Your task to perform on an android device: Add razer blade to the cart on bestbuy.com Image 0: 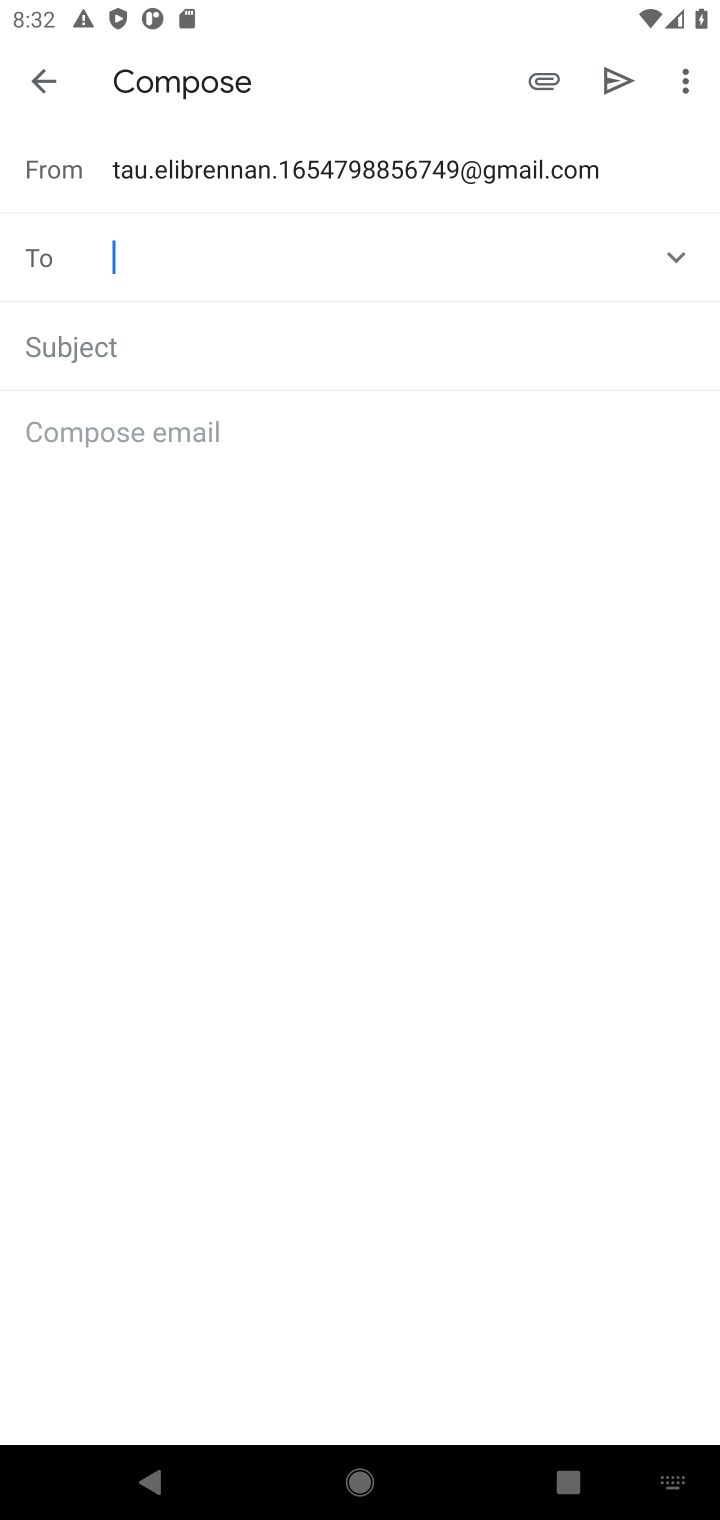
Step 0: press home button
Your task to perform on an android device: Add razer blade to the cart on bestbuy.com Image 1: 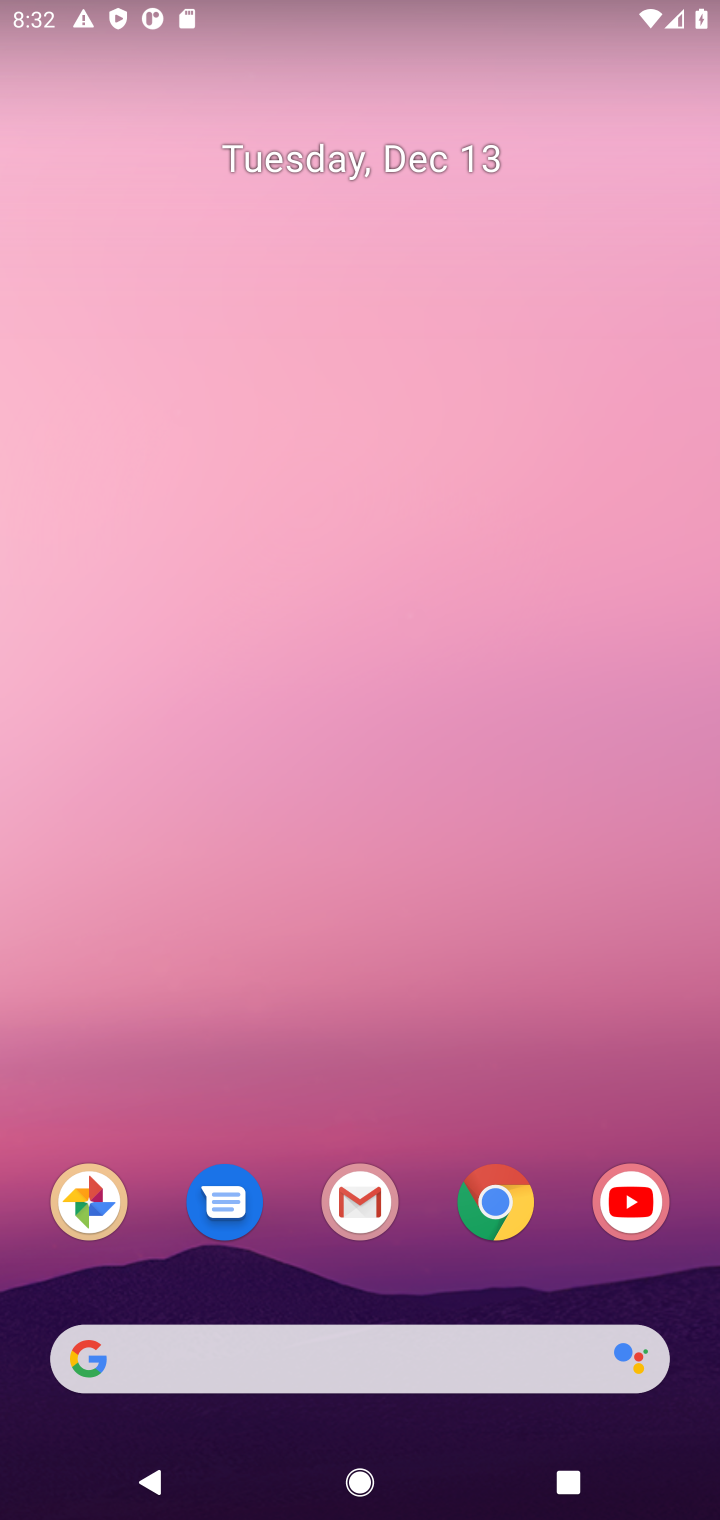
Step 1: click (485, 1222)
Your task to perform on an android device: Add razer blade to the cart on bestbuy.com Image 2: 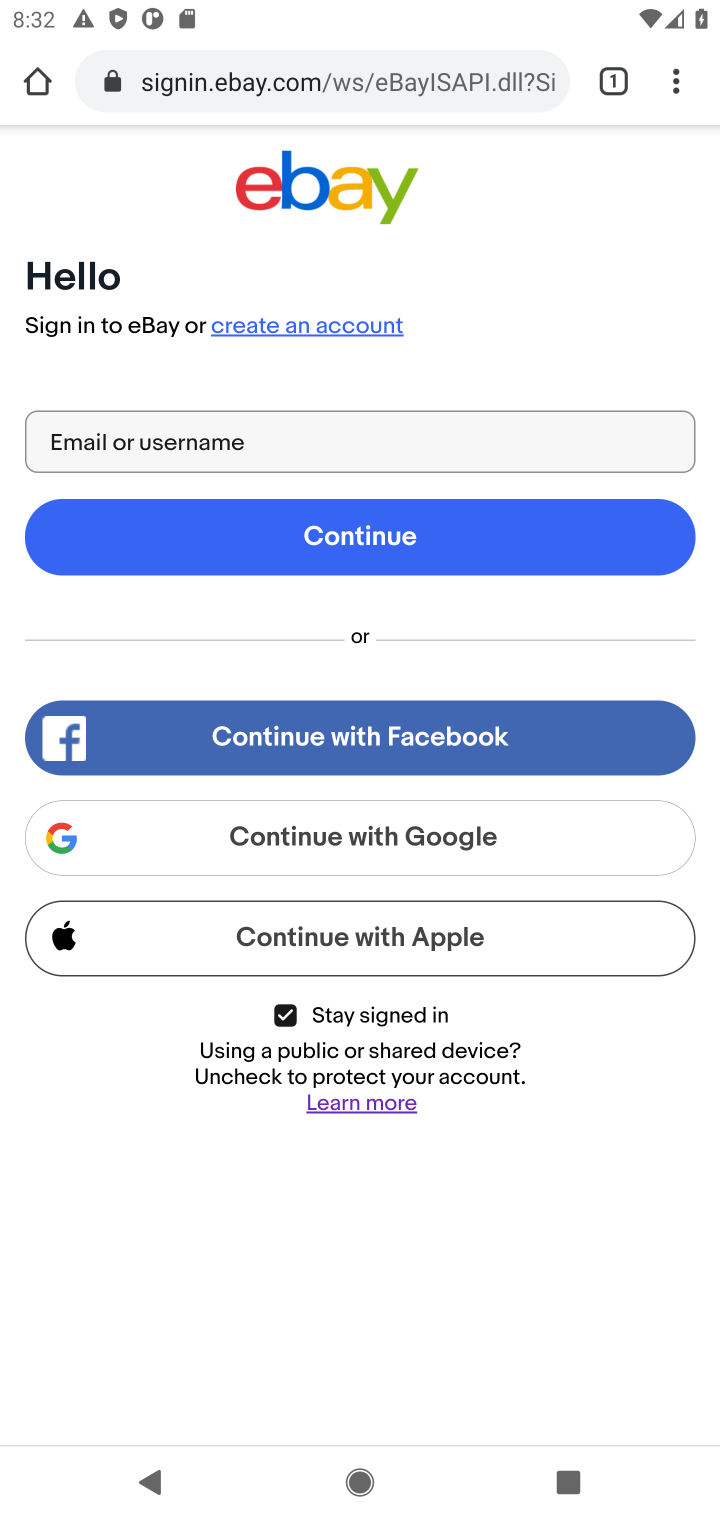
Step 2: click (442, 80)
Your task to perform on an android device: Add razer blade to the cart on bestbuy.com Image 3: 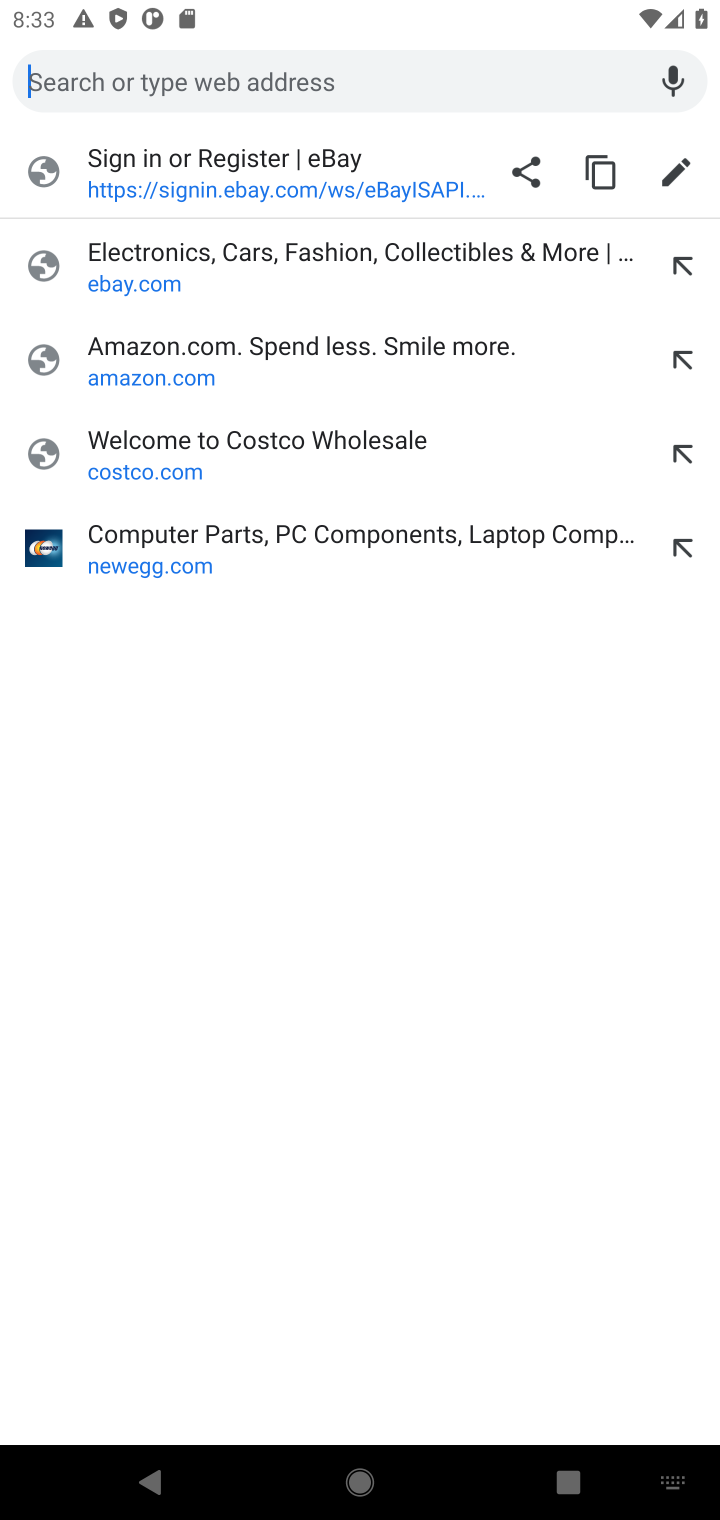
Step 3: type "bestbuy.com"
Your task to perform on an android device: Add razer blade to the cart on bestbuy.com Image 4: 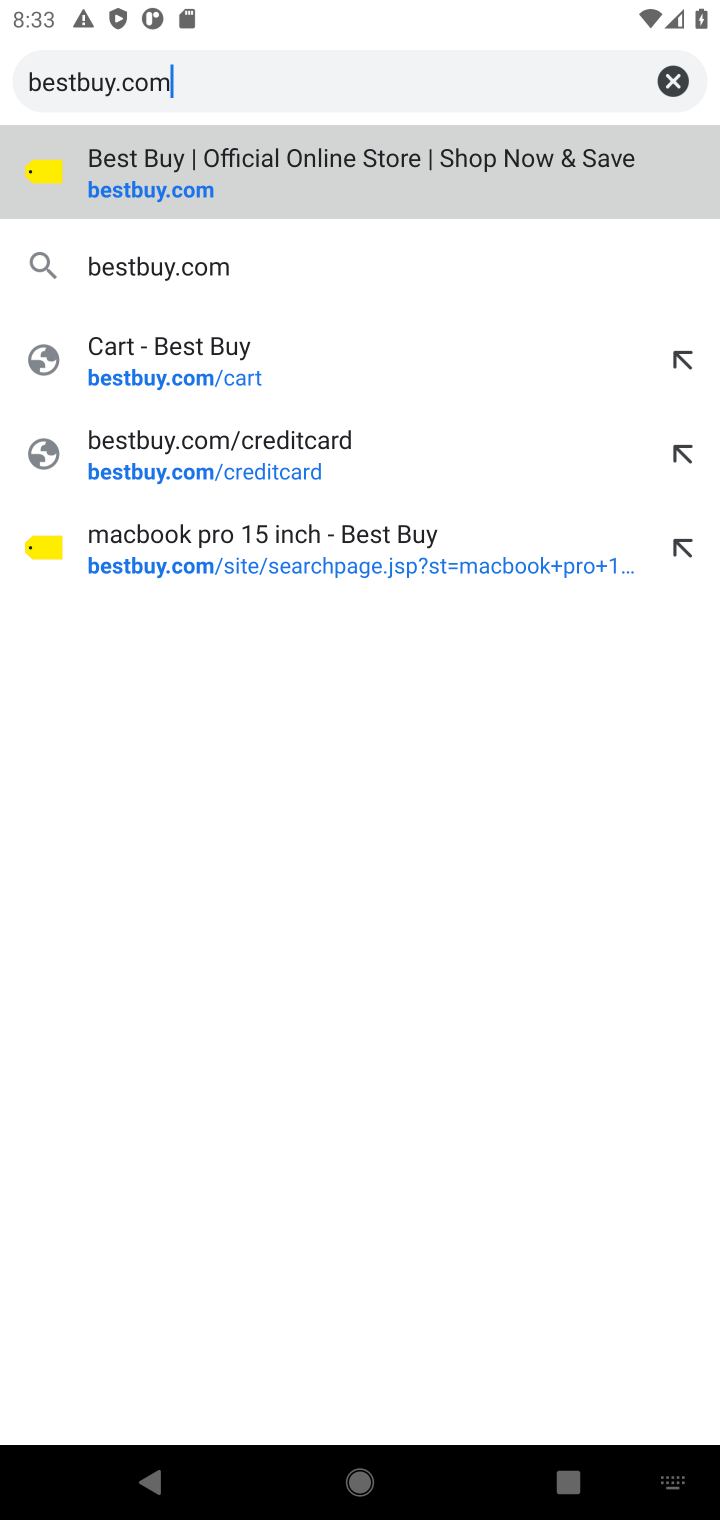
Step 4: click (201, 175)
Your task to perform on an android device: Add razer blade to the cart on bestbuy.com Image 5: 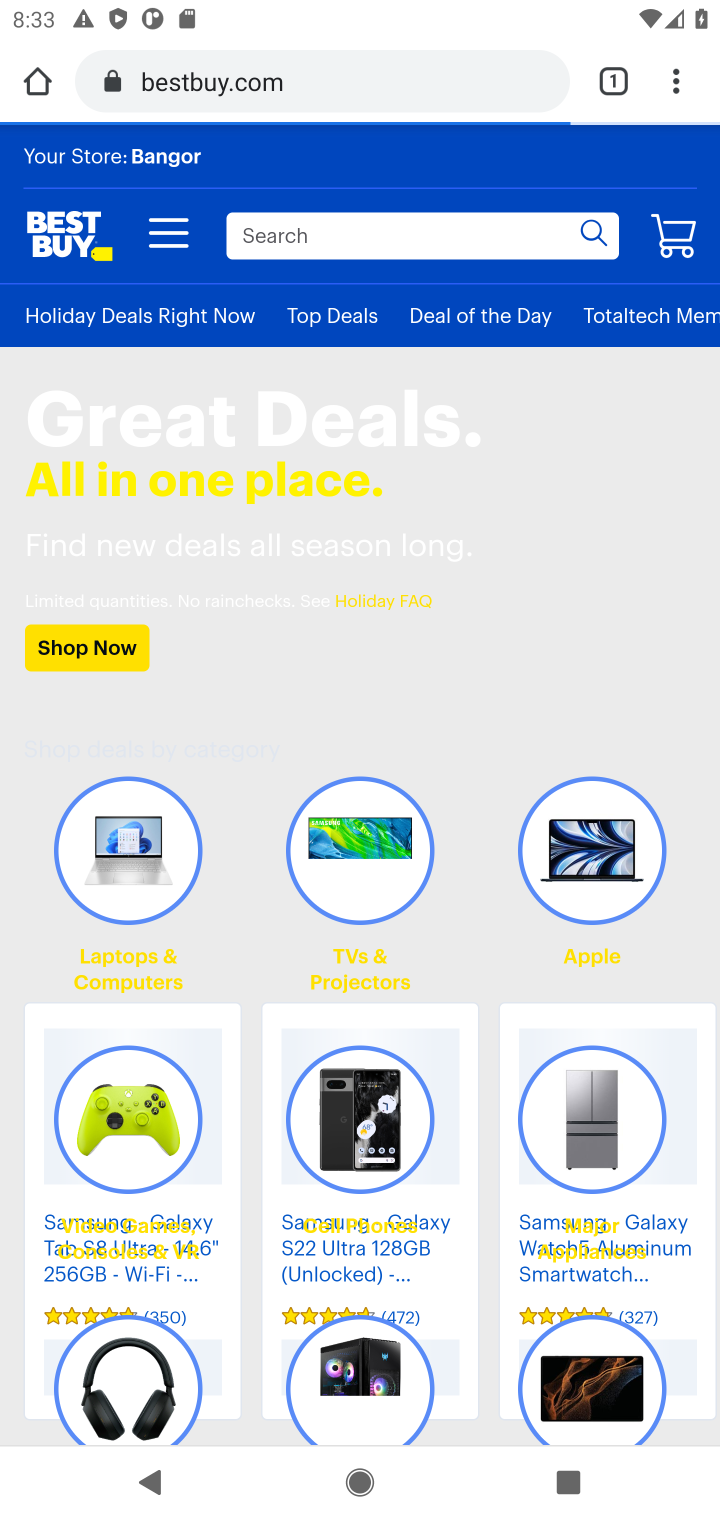
Step 5: click (451, 245)
Your task to perform on an android device: Add razer blade to the cart on bestbuy.com Image 6: 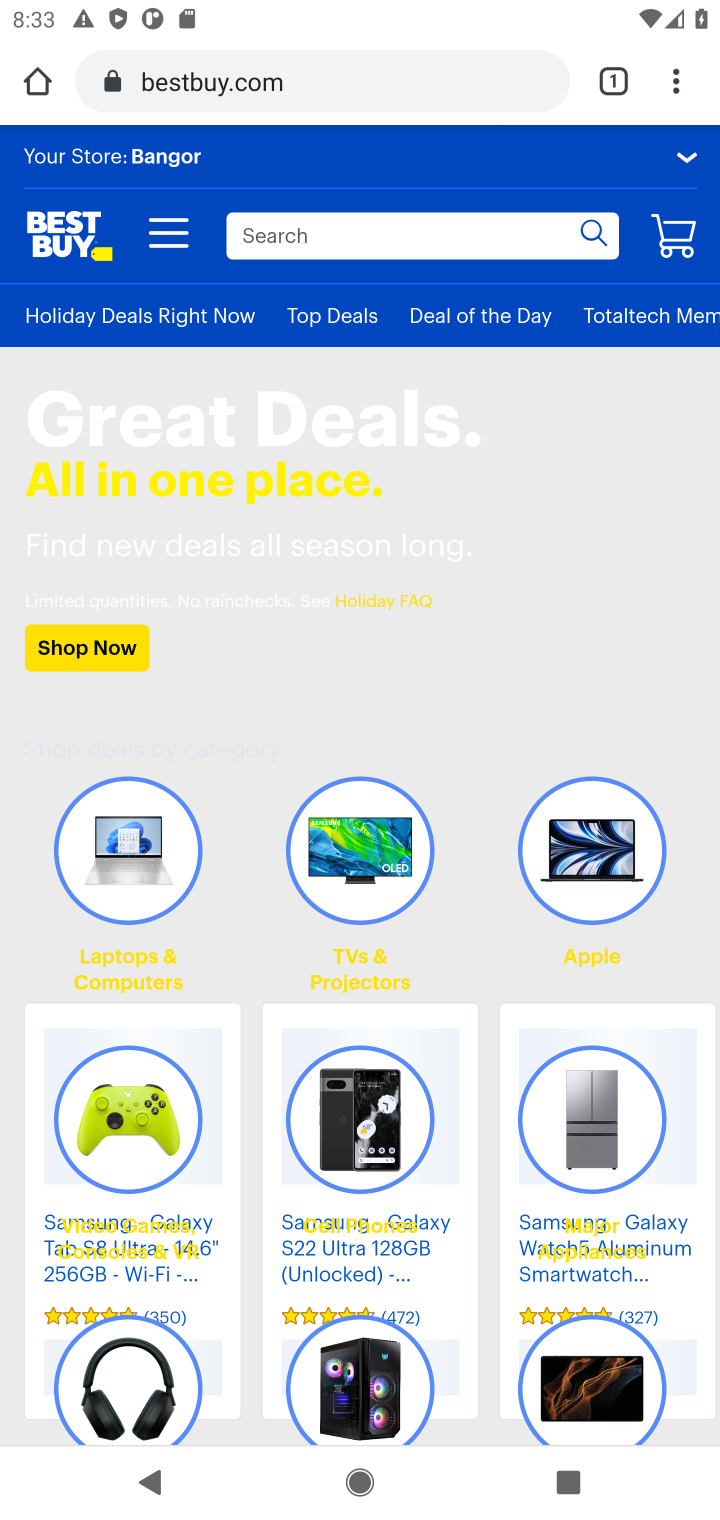
Step 6: type "razer blade"
Your task to perform on an android device: Add razer blade to the cart on bestbuy.com Image 7: 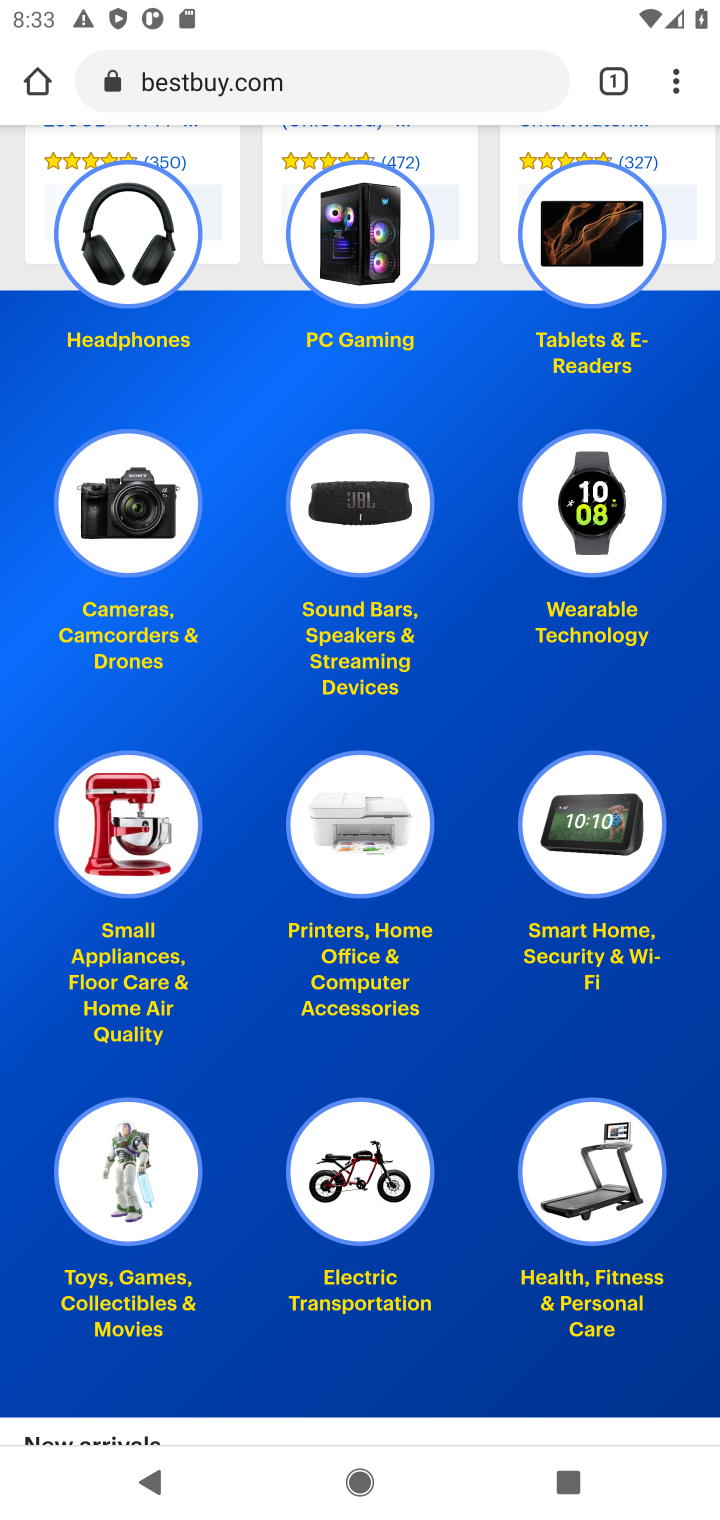
Step 7: drag from (432, 901) to (464, 487)
Your task to perform on an android device: Add razer blade to the cart on bestbuy.com Image 8: 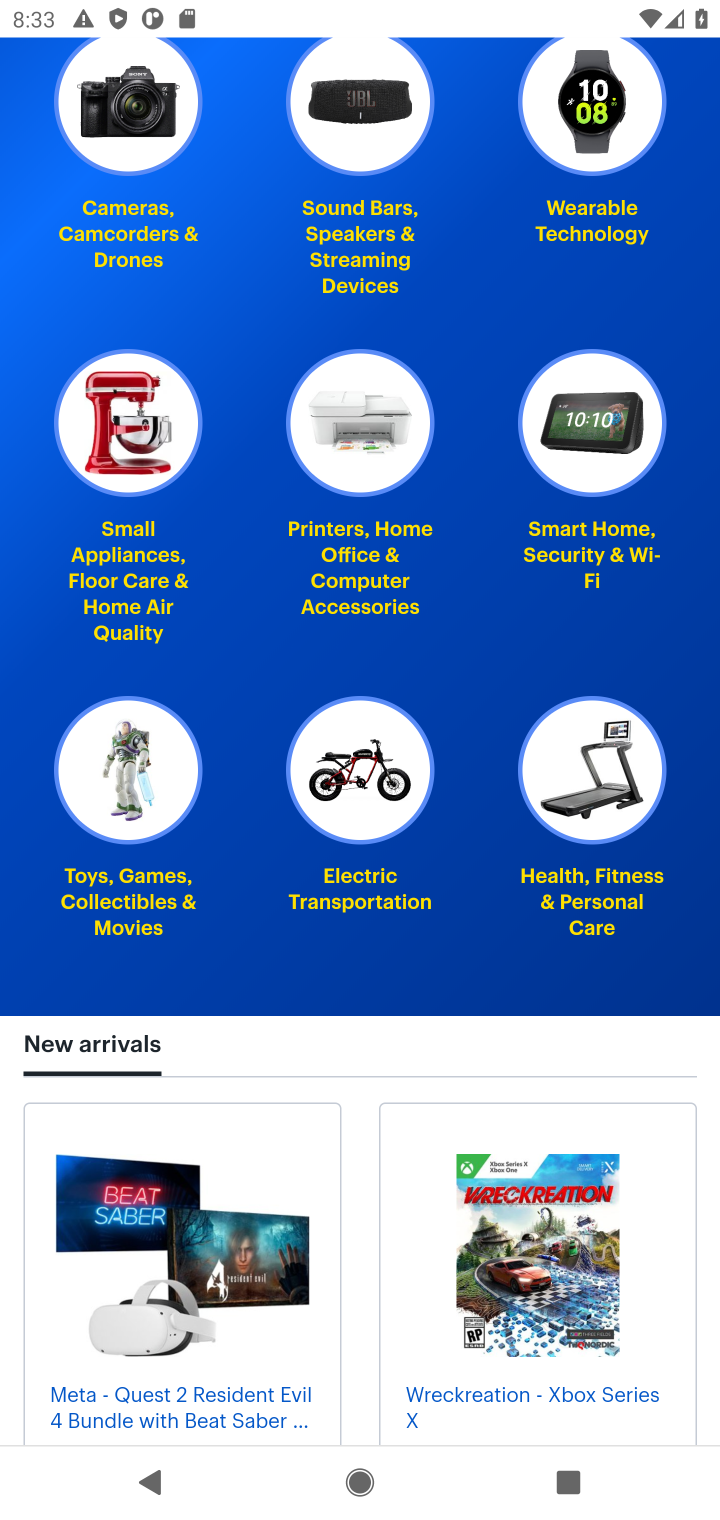
Step 8: drag from (449, 688) to (386, 1181)
Your task to perform on an android device: Add razer blade to the cart on bestbuy.com Image 9: 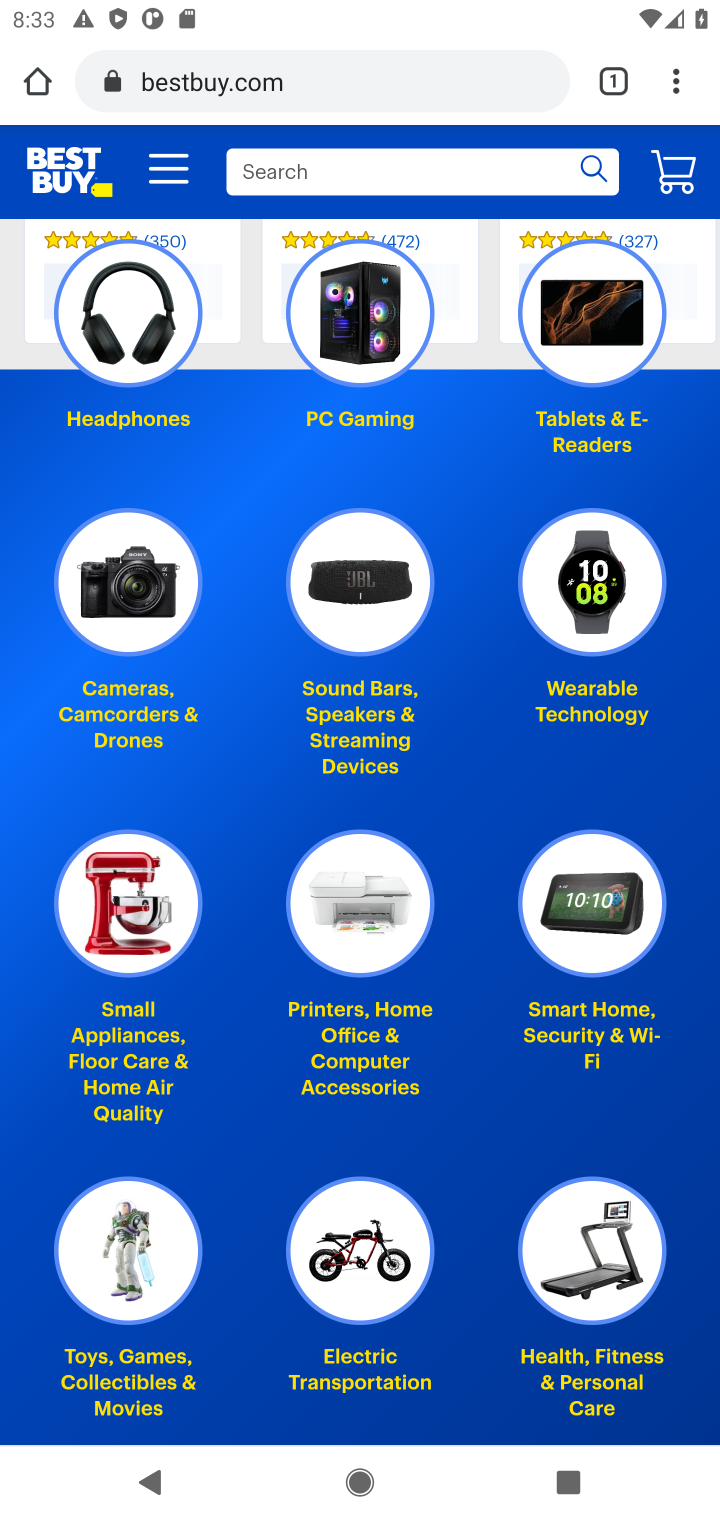
Step 9: click (334, 168)
Your task to perform on an android device: Add razer blade to the cart on bestbuy.com Image 10: 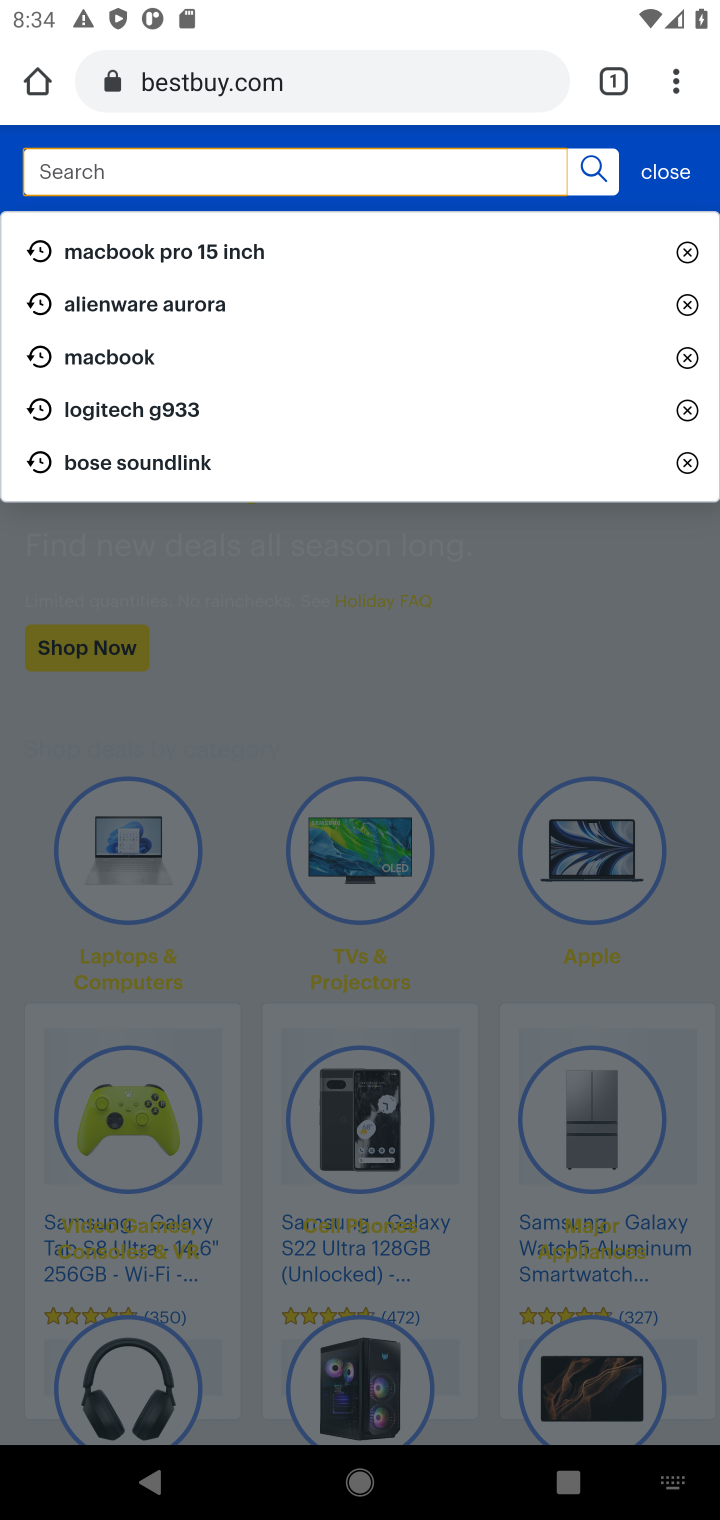
Step 10: type "razer blade"
Your task to perform on an android device: Add razer blade to the cart on bestbuy.com Image 11: 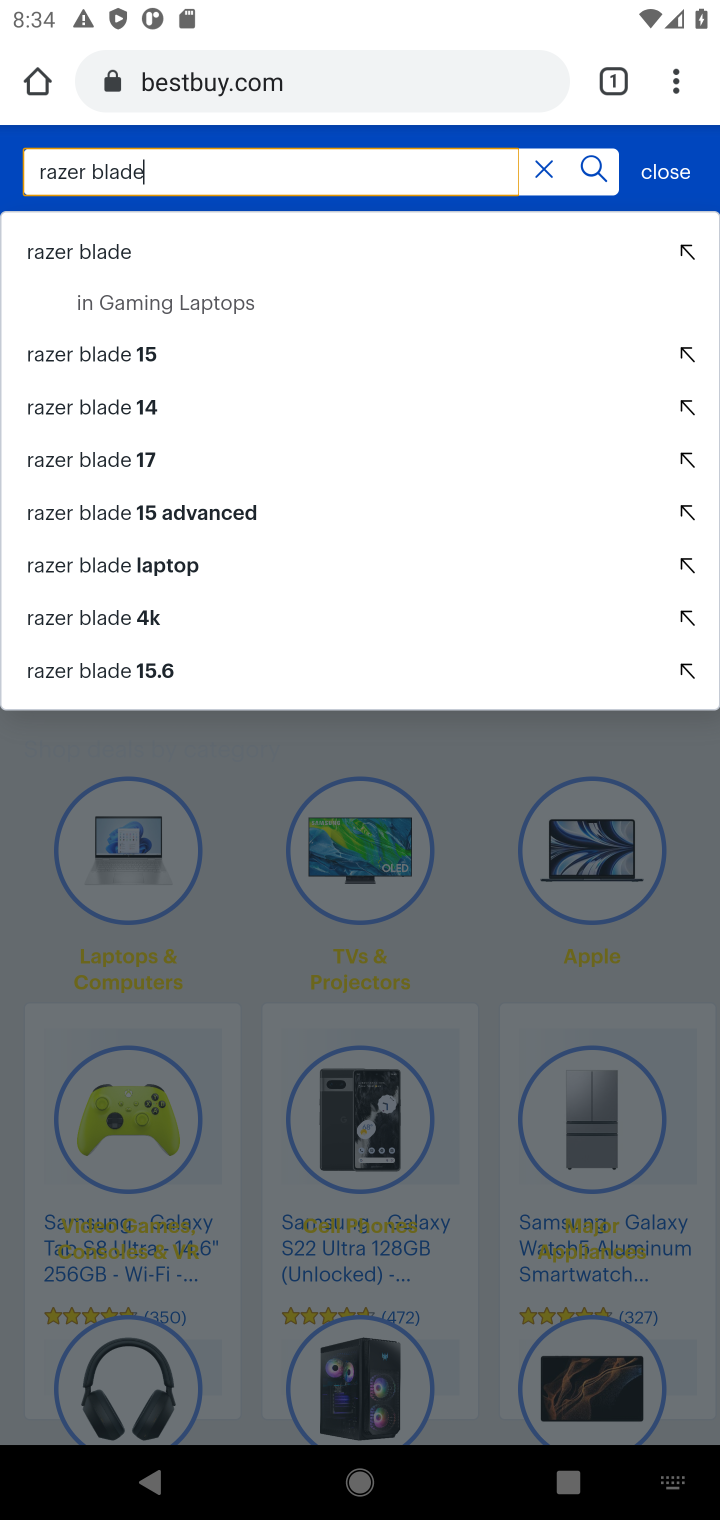
Step 11: click (31, 249)
Your task to perform on an android device: Add razer blade to the cart on bestbuy.com Image 12: 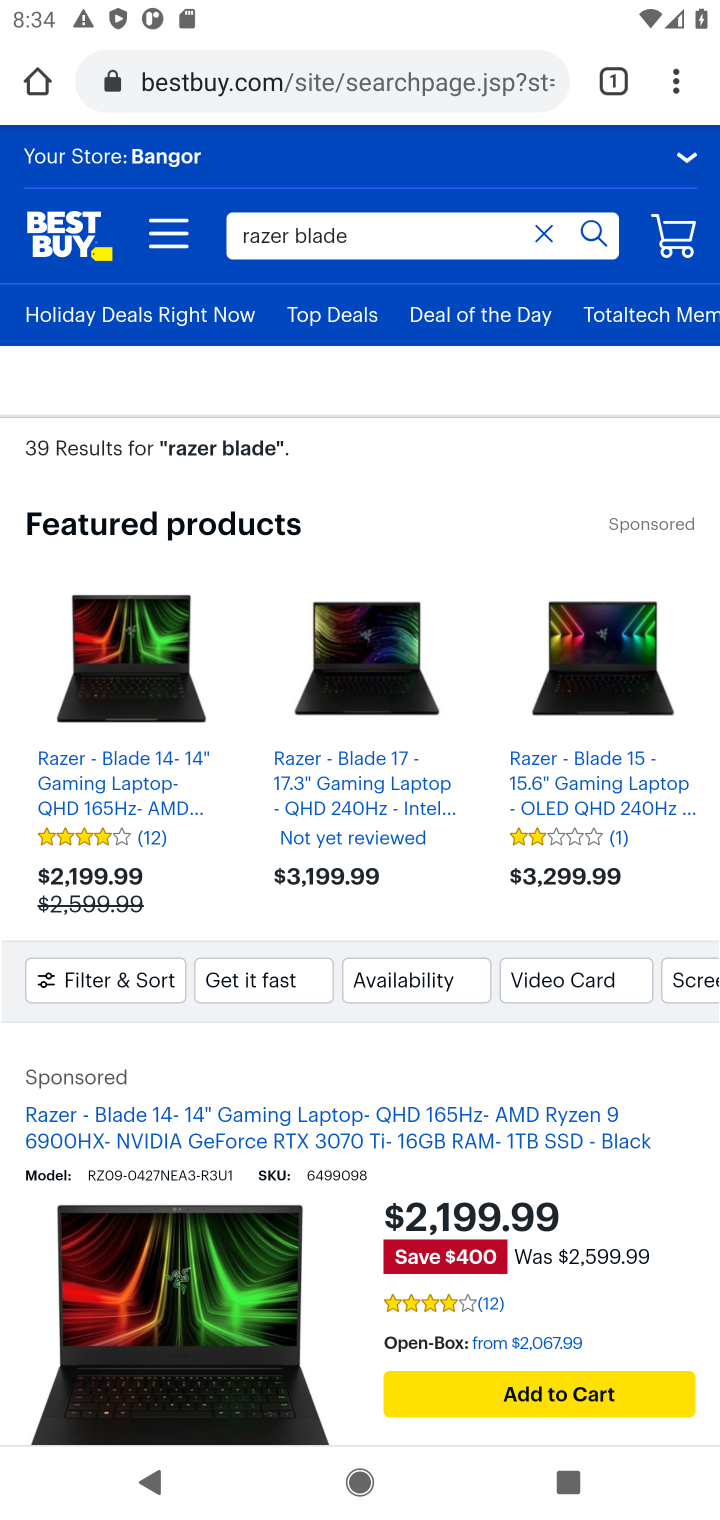
Step 12: drag from (219, 1340) to (257, 671)
Your task to perform on an android device: Add razer blade to the cart on bestbuy.com Image 13: 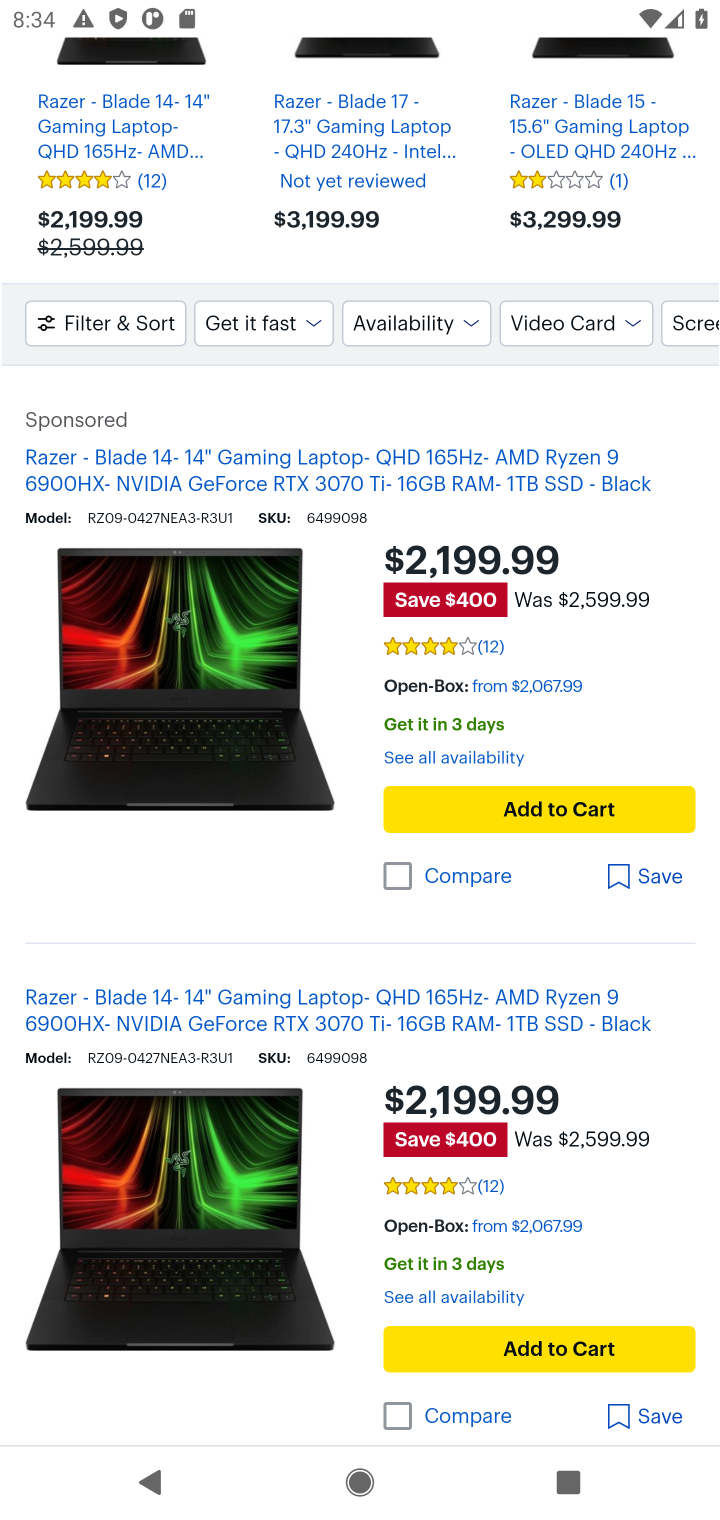
Step 13: click (538, 815)
Your task to perform on an android device: Add razer blade to the cart on bestbuy.com Image 14: 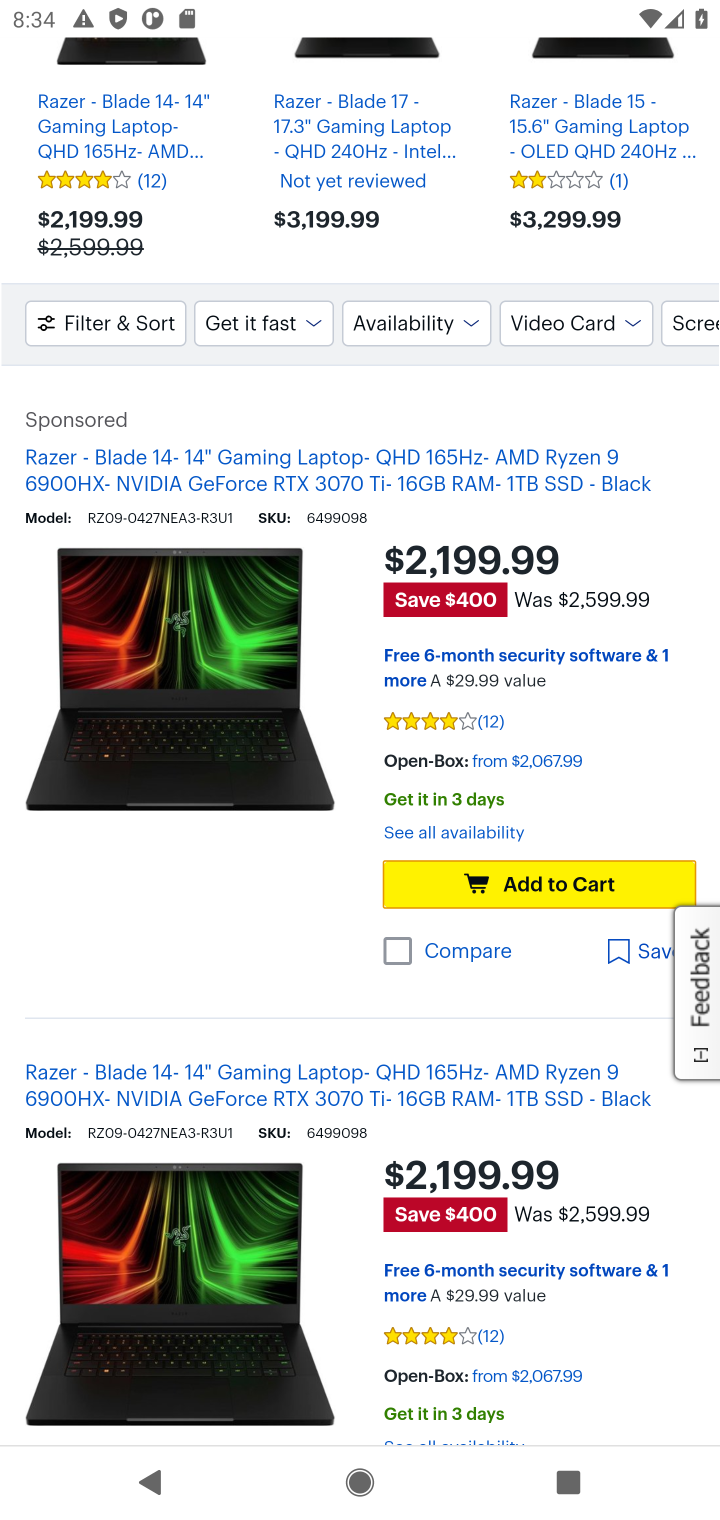
Step 14: click (498, 873)
Your task to perform on an android device: Add razer blade to the cart on bestbuy.com Image 15: 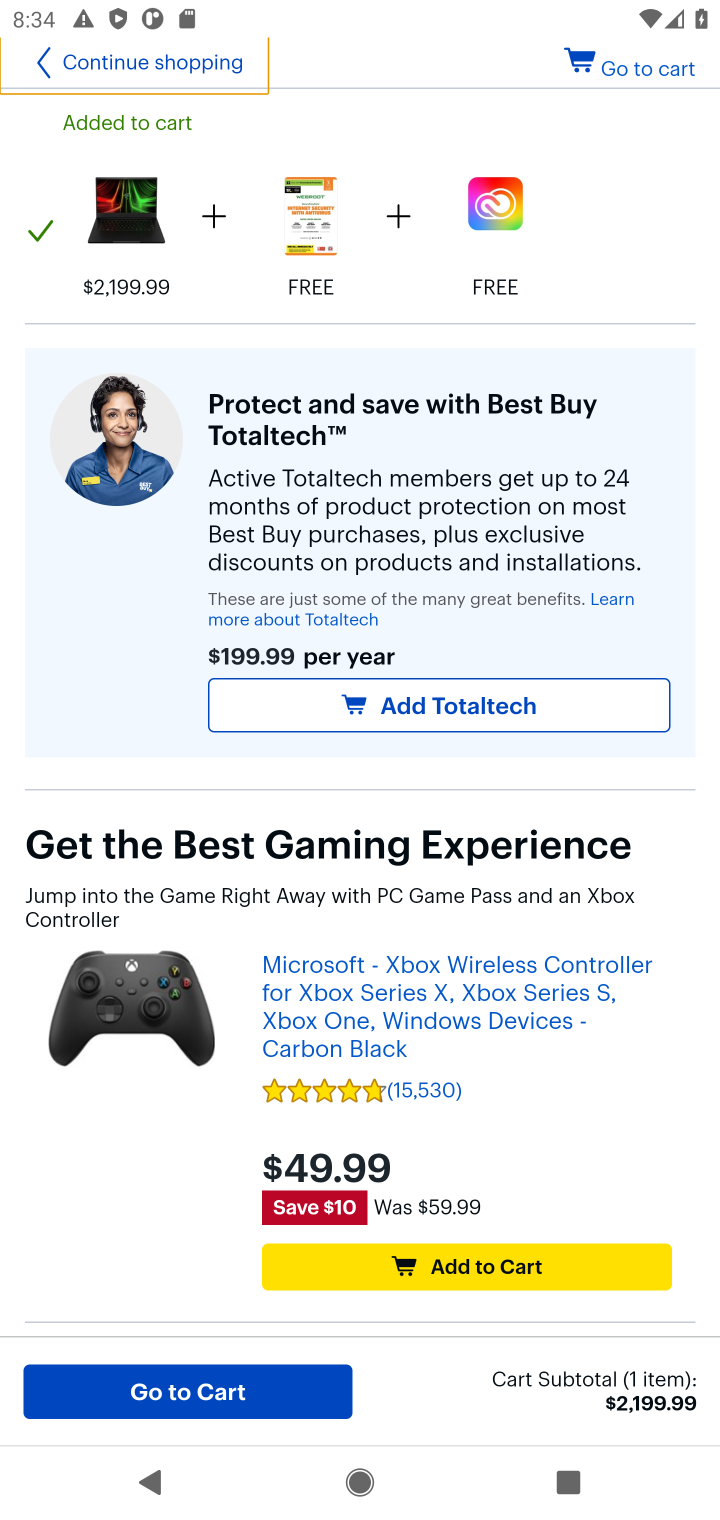
Step 15: task complete